Your task to perform on an android device: Check the weather Image 0: 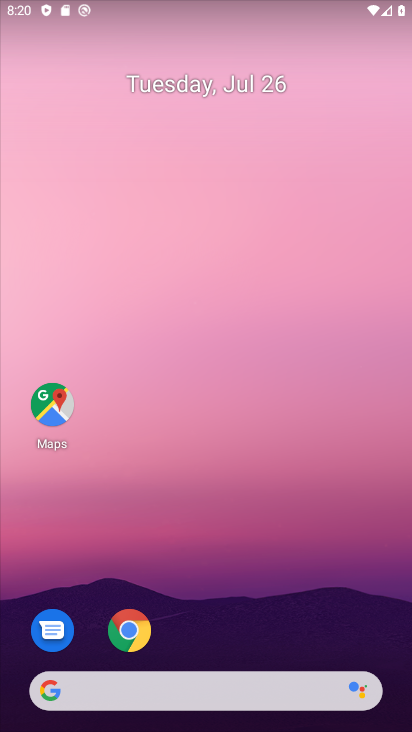
Step 0: drag from (359, 609) to (371, 148)
Your task to perform on an android device: Check the weather Image 1: 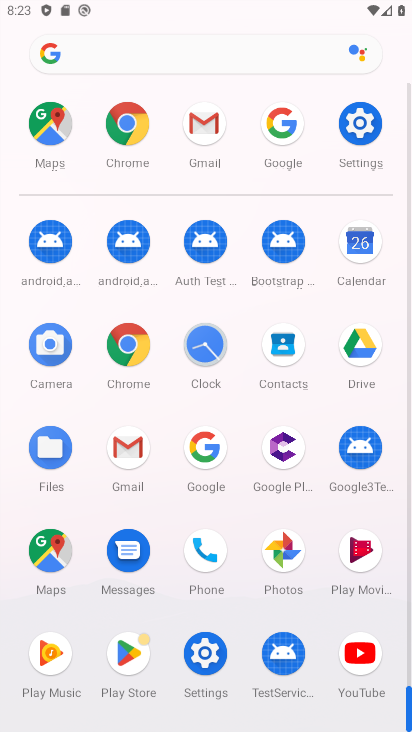
Step 1: click (214, 450)
Your task to perform on an android device: Check the weather Image 2: 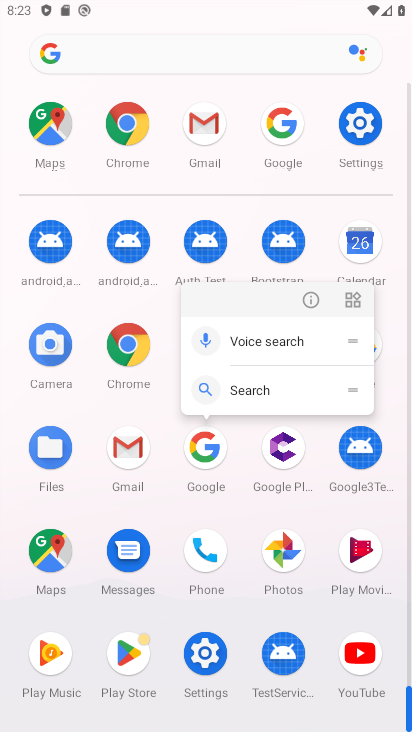
Step 2: click (207, 444)
Your task to perform on an android device: Check the weather Image 3: 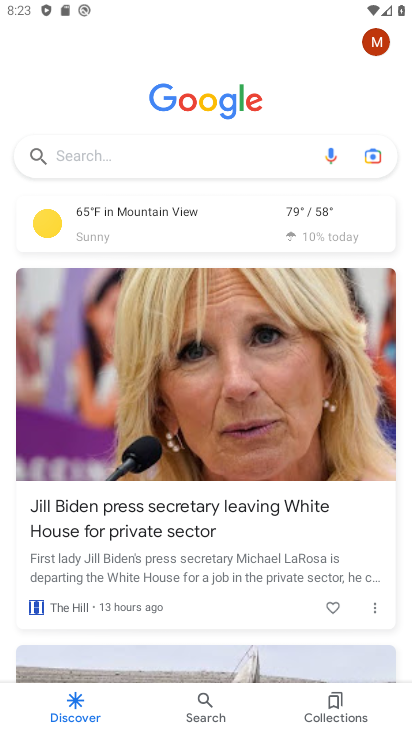
Step 3: click (174, 227)
Your task to perform on an android device: Check the weather Image 4: 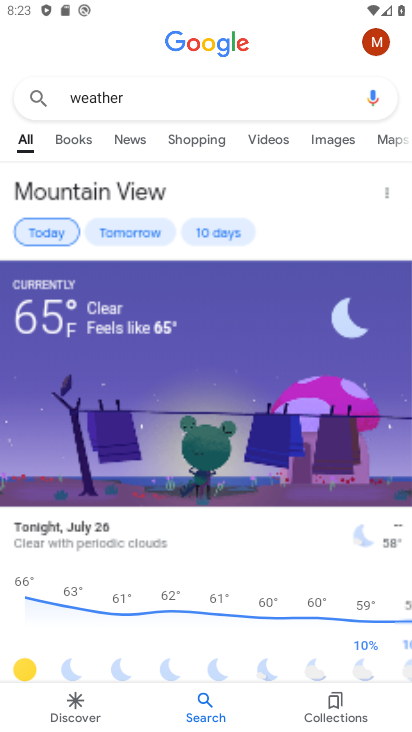
Step 4: task complete